Your task to perform on an android device: Open Google Maps Image 0: 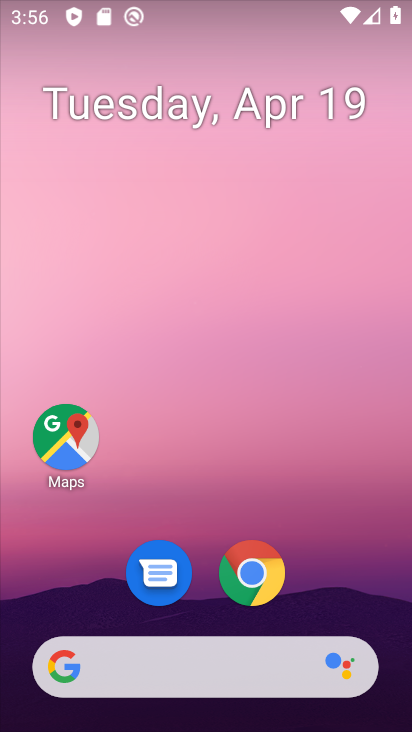
Step 0: click (72, 453)
Your task to perform on an android device: Open Google Maps Image 1: 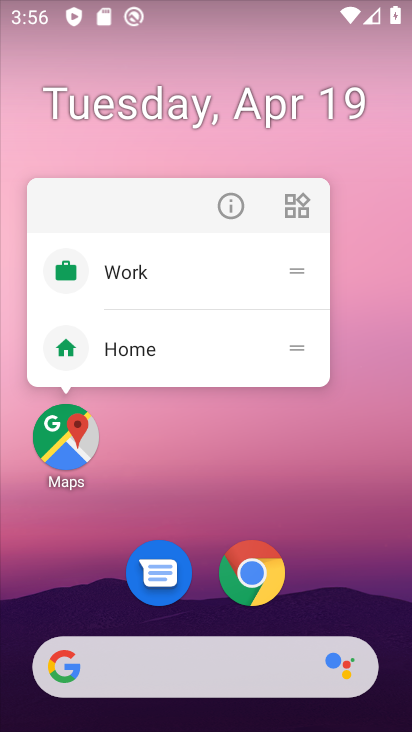
Step 1: click (59, 438)
Your task to perform on an android device: Open Google Maps Image 2: 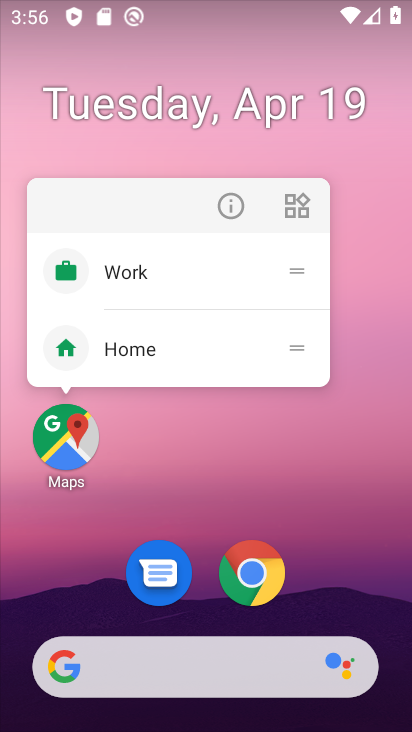
Step 2: click (60, 420)
Your task to perform on an android device: Open Google Maps Image 3: 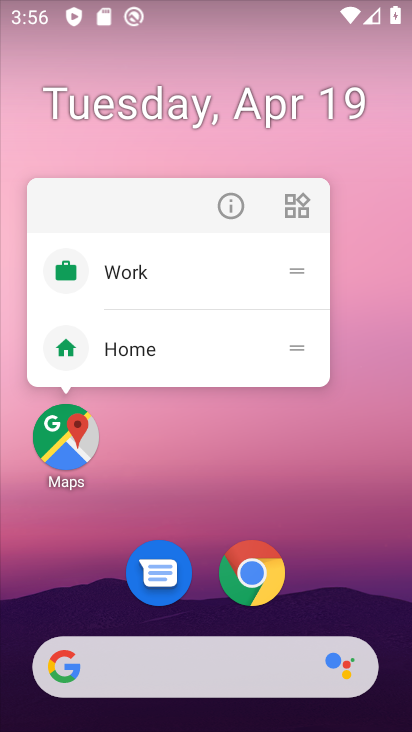
Step 3: click (86, 437)
Your task to perform on an android device: Open Google Maps Image 4: 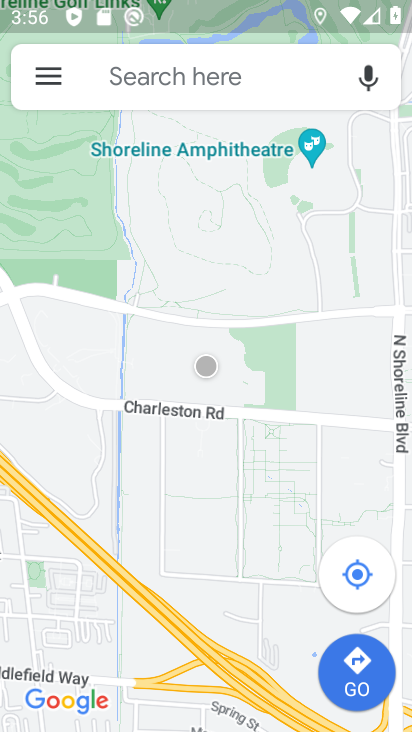
Step 4: task complete